Your task to perform on an android device: change alarm snooze length Image 0: 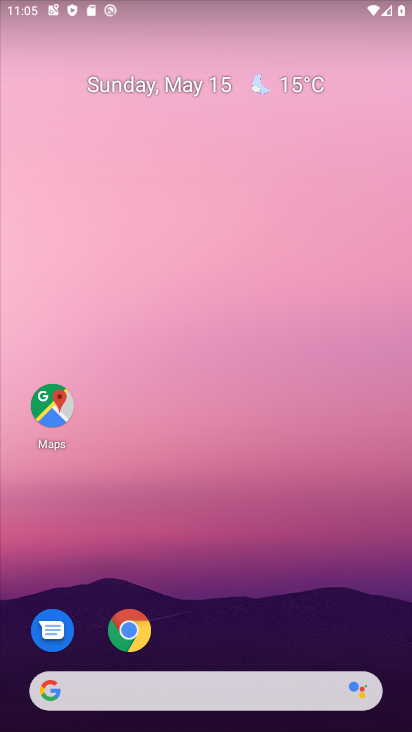
Step 0: drag from (223, 726) to (221, 197)
Your task to perform on an android device: change alarm snooze length Image 1: 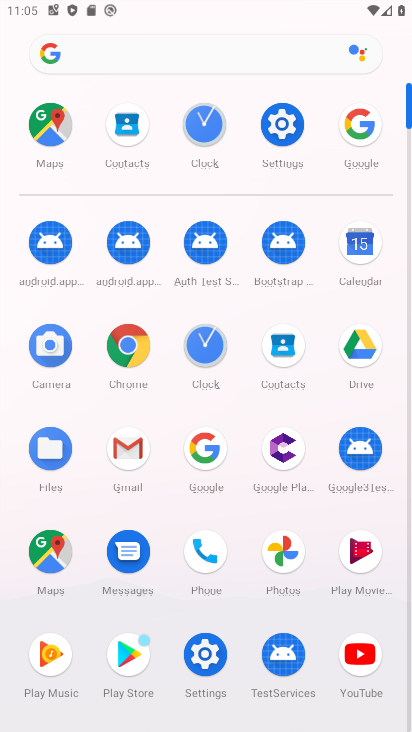
Step 1: click (213, 344)
Your task to perform on an android device: change alarm snooze length Image 2: 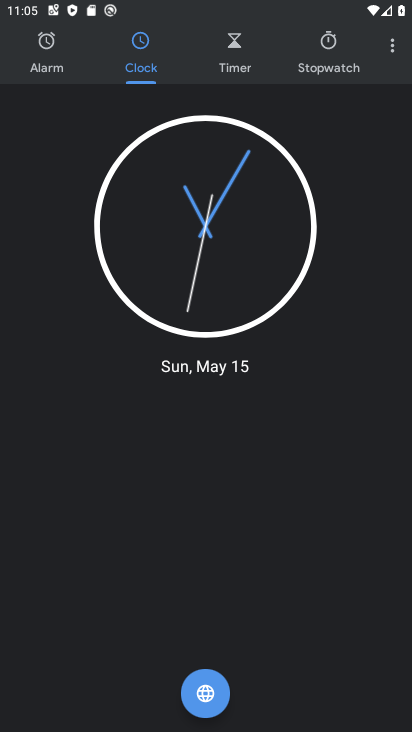
Step 2: click (394, 54)
Your task to perform on an android device: change alarm snooze length Image 3: 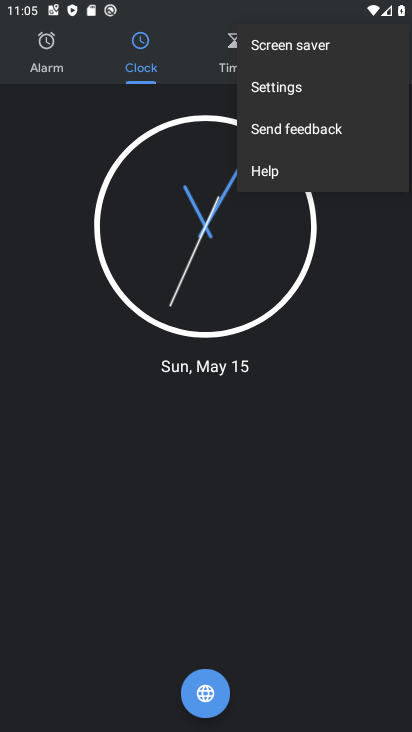
Step 3: click (265, 86)
Your task to perform on an android device: change alarm snooze length Image 4: 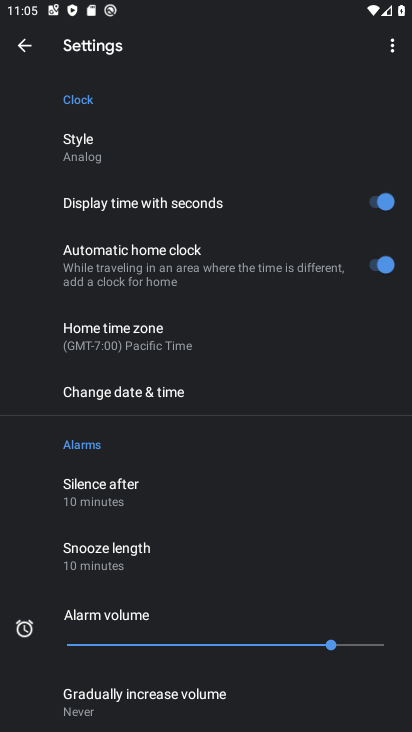
Step 4: drag from (121, 601) to (126, 403)
Your task to perform on an android device: change alarm snooze length Image 5: 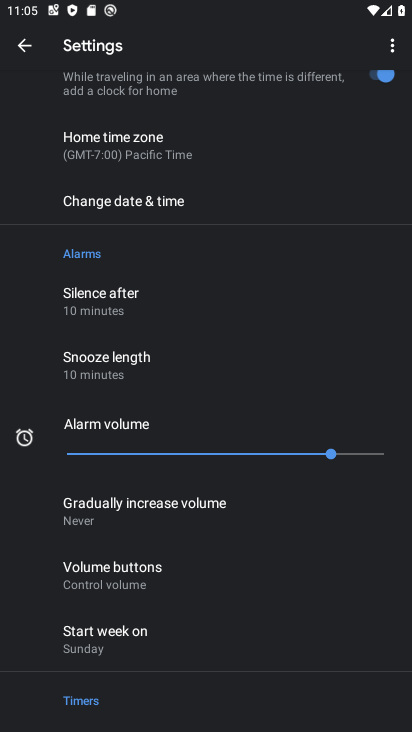
Step 5: click (96, 352)
Your task to perform on an android device: change alarm snooze length Image 6: 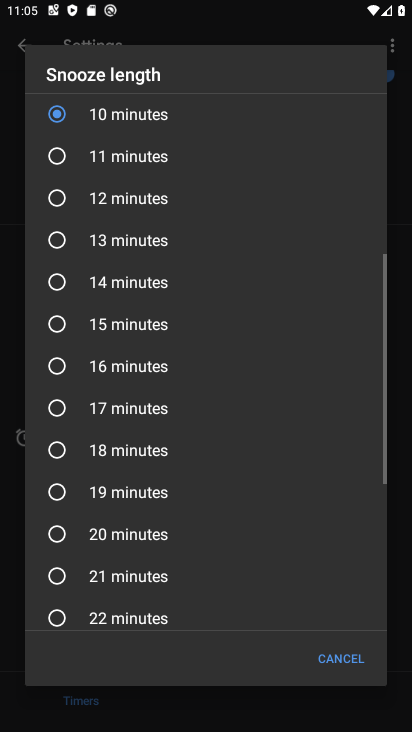
Step 6: click (64, 488)
Your task to perform on an android device: change alarm snooze length Image 7: 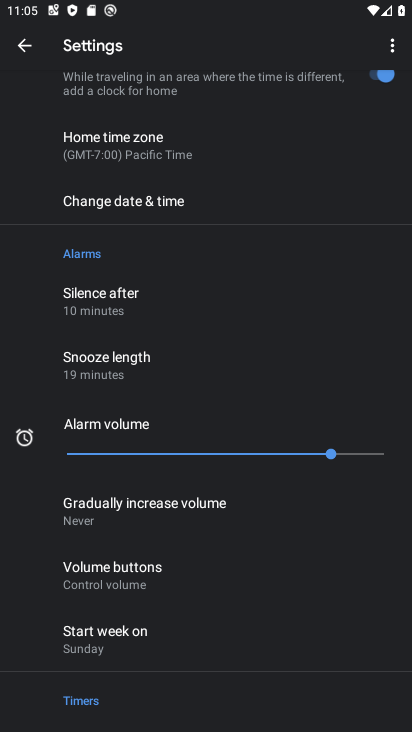
Step 7: task complete